Your task to perform on an android device: Go to display settings Image 0: 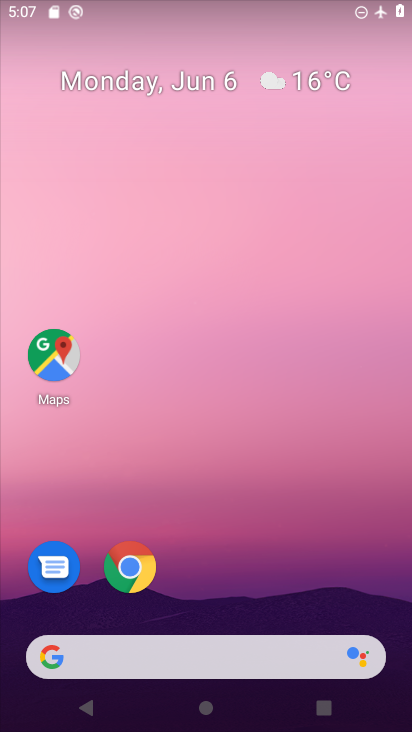
Step 0: click (91, 82)
Your task to perform on an android device: Go to display settings Image 1: 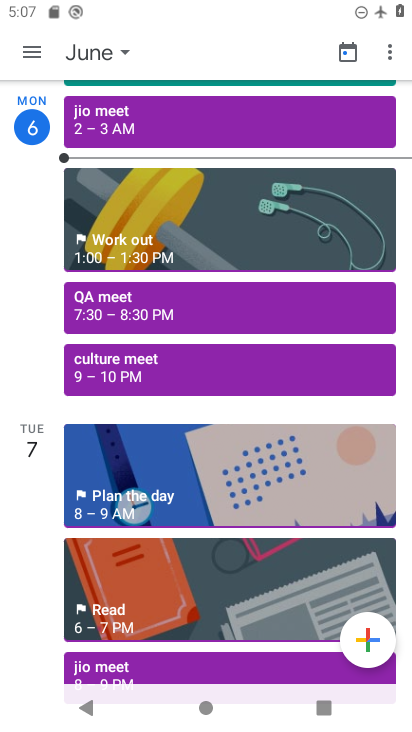
Step 1: press back button
Your task to perform on an android device: Go to display settings Image 2: 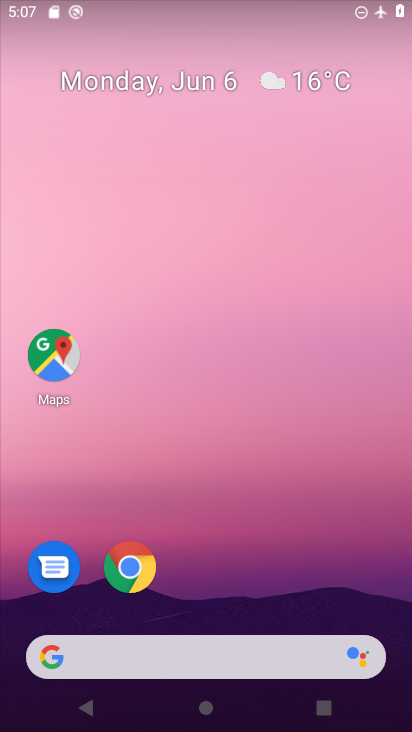
Step 2: drag from (238, 463) to (238, 189)
Your task to perform on an android device: Go to display settings Image 3: 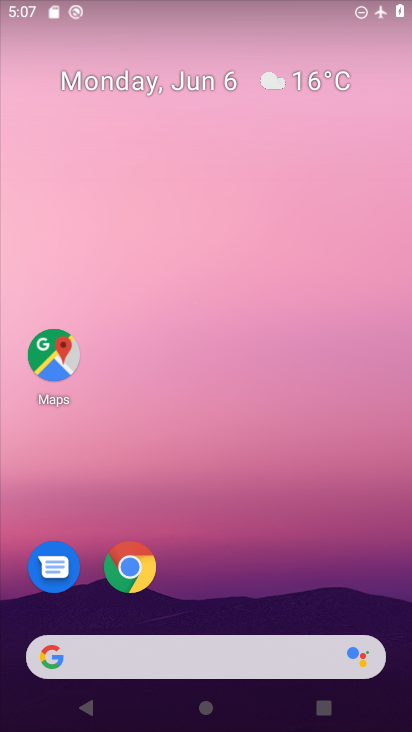
Step 3: drag from (234, 642) to (203, 48)
Your task to perform on an android device: Go to display settings Image 4: 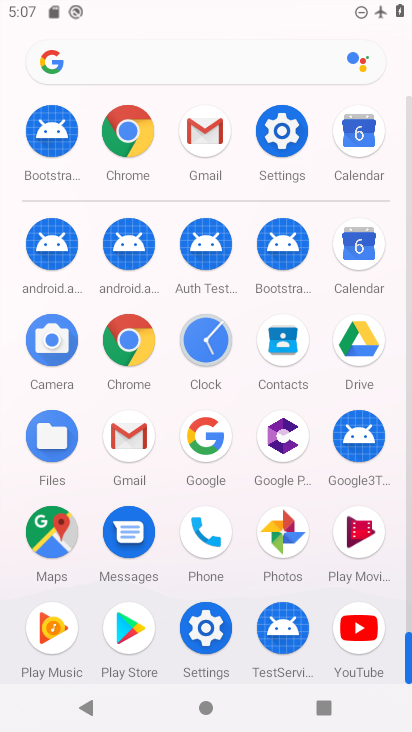
Step 4: click (200, 632)
Your task to perform on an android device: Go to display settings Image 5: 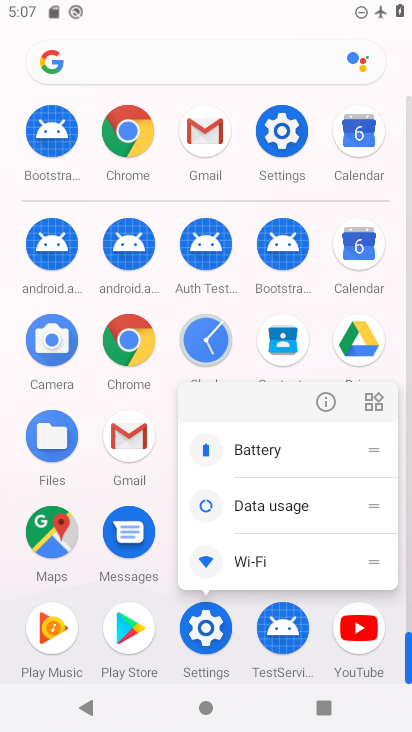
Step 5: click (198, 605)
Your task to perform on an android device: Go to display settings Image 6: 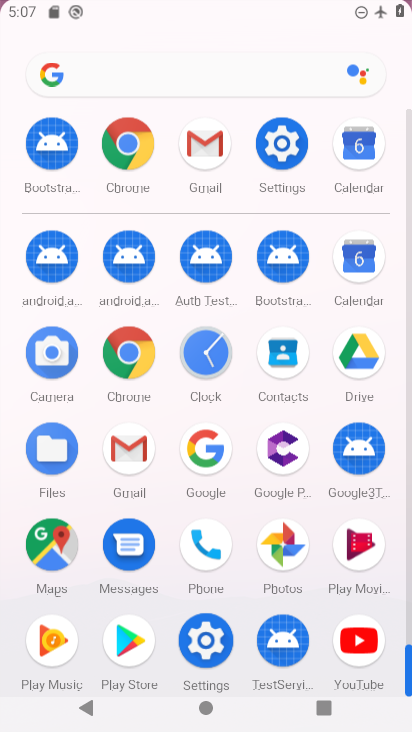
Step 6: click (203, 626)
Your task to perform on an android device: Go to display settings Image 7: 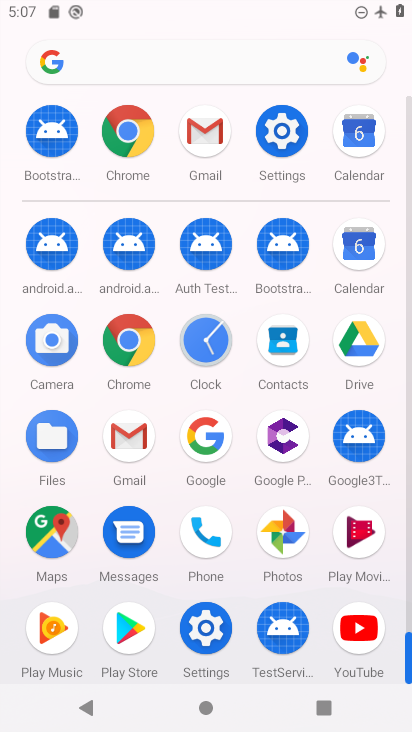
Step 7: click (204, 627)
Your task to perform on an android device: Go to display settings Image 8: 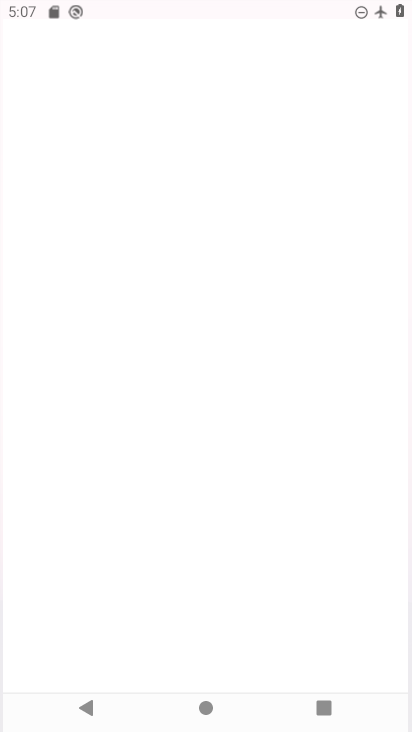
Step 8: click (206, 631)
Your task to perform on an android device: Go to display settings Image 9: 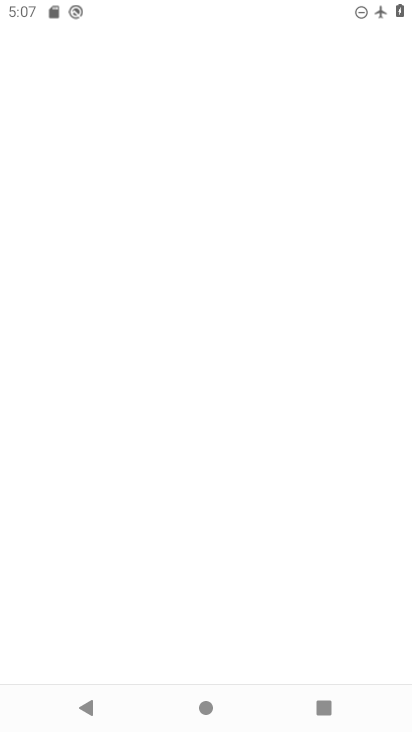
Step 9: click (205, 630)
Your task to perform on an android device: Go to display settings Image 10: 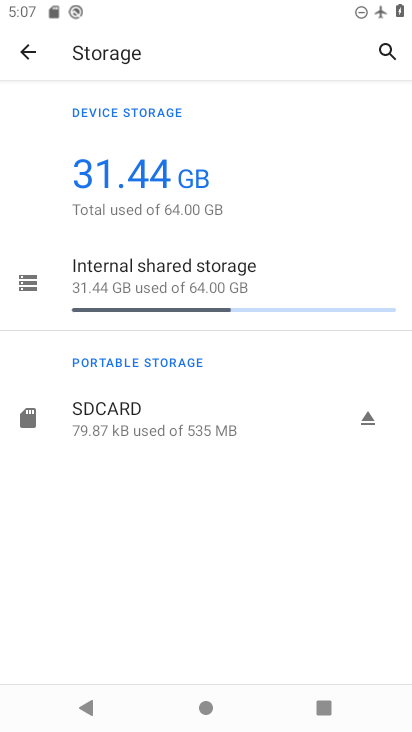
Step 10: click (18, 50)
Your task to perform on an android device: Go to display settings Image 11: 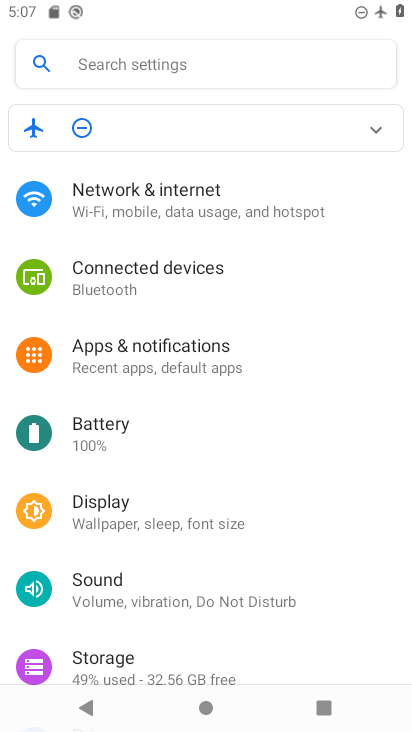
Step 11: click (117, 523)
Your task to perform on an android device: Go to display settings Image 12: 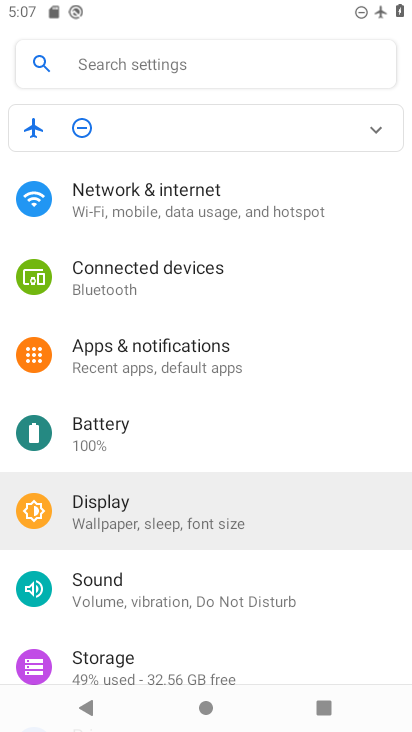
Step 12: click (118, 522)
Your task to perform on an android device: Go to display settings Image 13: 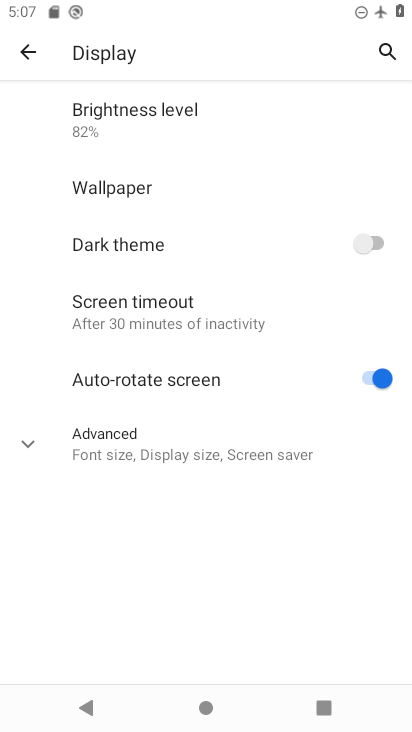
Step 13: click (121, 524)
Your task to perform on an android device: Go to display settings Image 14: 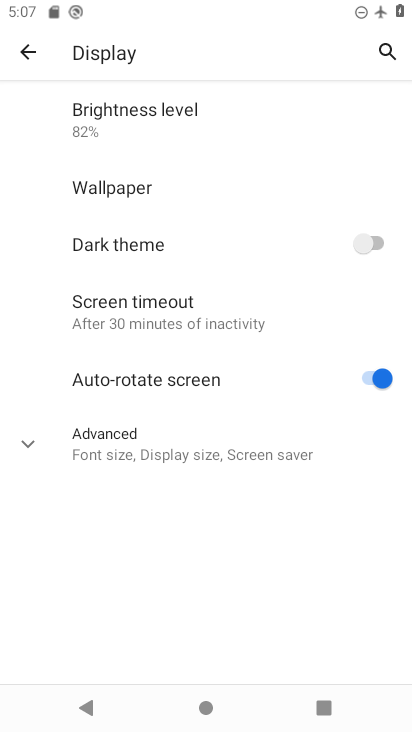
Step 14: click (123, 526)
Your task to perform on an android device: Go to display settings Image 15: 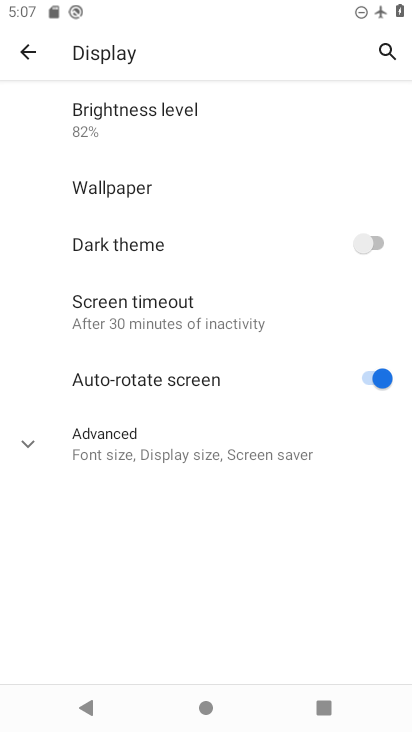
Step 15: task complete